Your task to perform on an android device: Open the calendar and show me this week's events? Image 0: 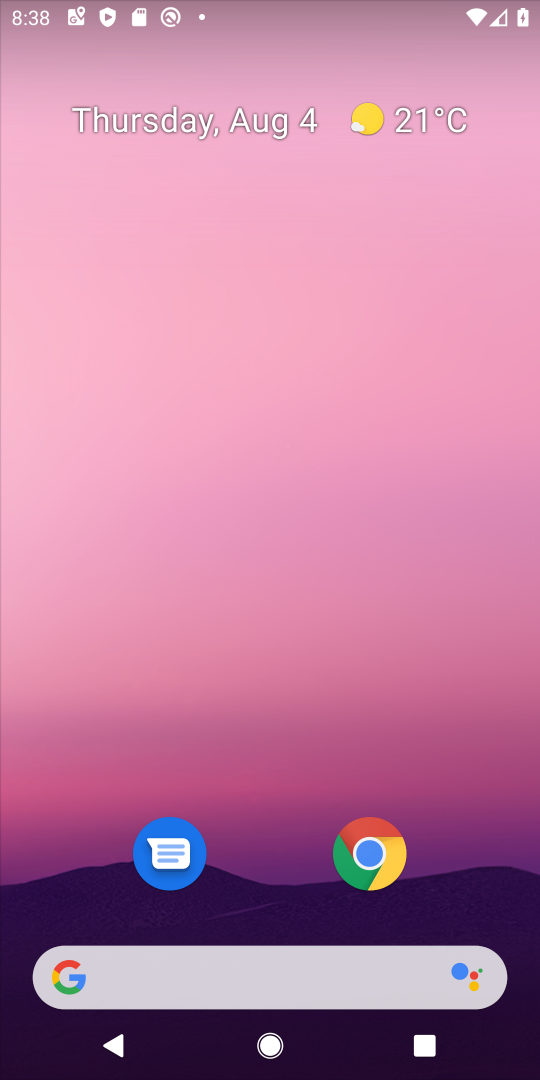
Step 0: drag from (246, 793) to (246, 337)
Your task to perform on an android device: Open the calendar and show me this week's events? Image 1: 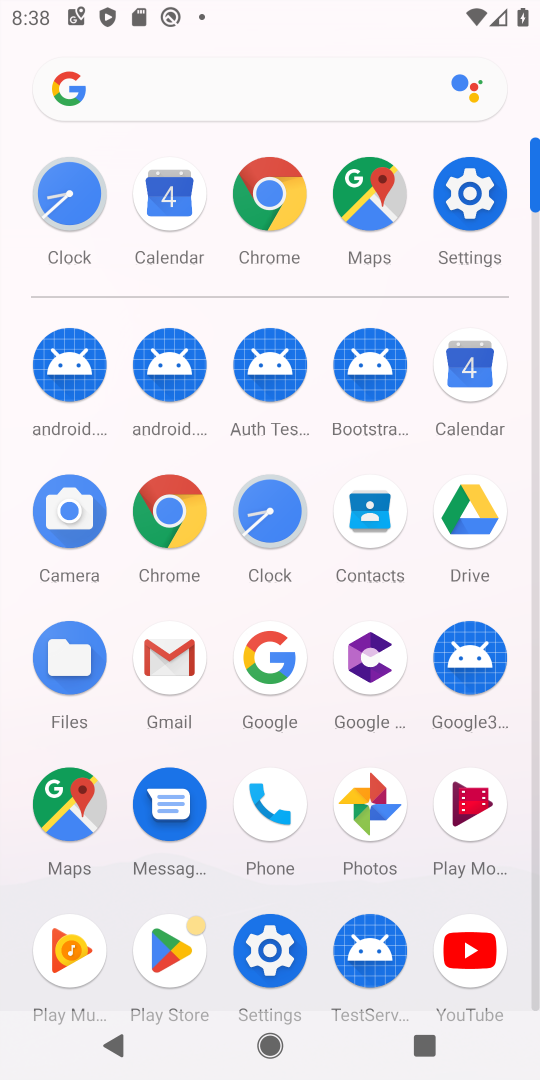
Step 1: click (462, 376)
Your task to perform on an android device: Open the calendar and show me this week's events? Image 2: 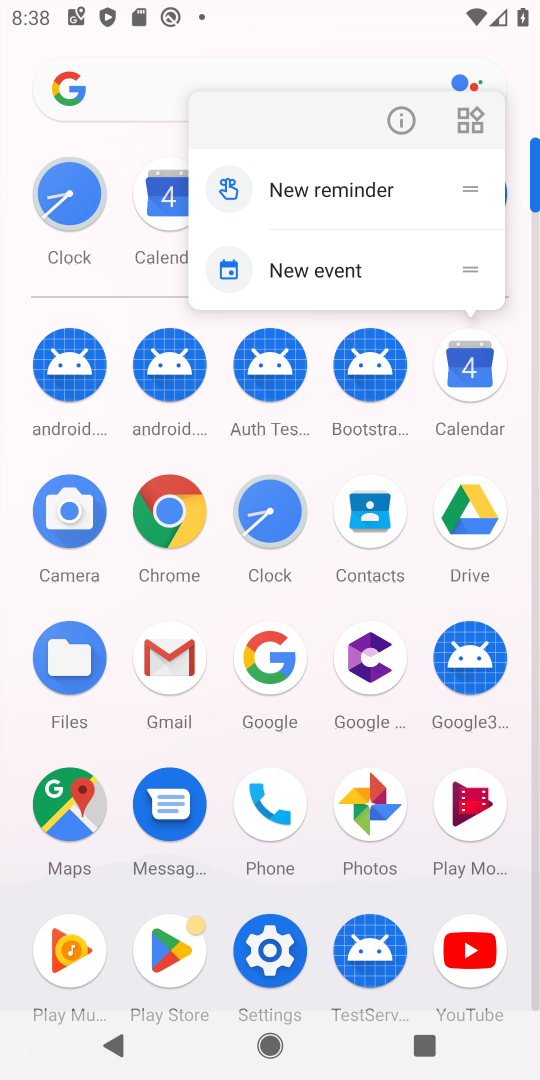
Step 2: click (461, 375)
Your task to perform on an android device: Open the calendar and show me this week's events? Image 3: 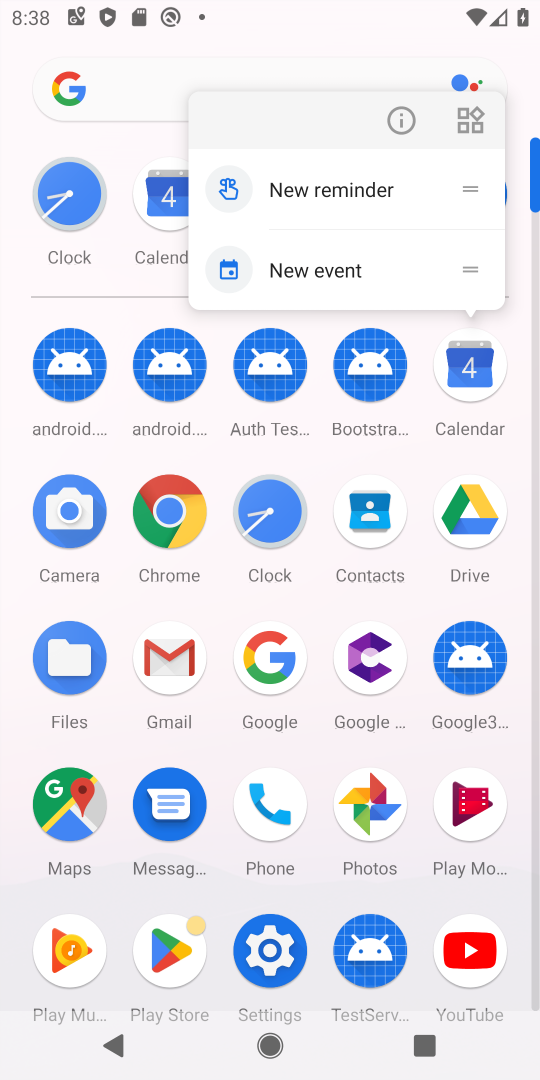
Step 3: click (464, 376)
Your task to perform on an android device: Open the calendar and show me this week's events? Image 4: 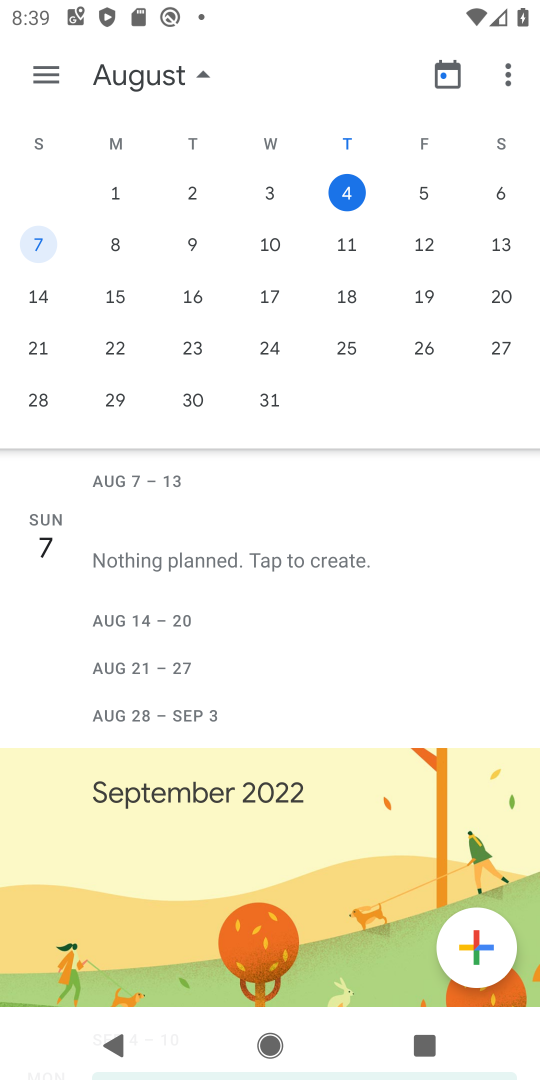
Step 4: click (458, 367)
Your task to perform on an android device: Open the calendar and show me this week's events? Image 5: 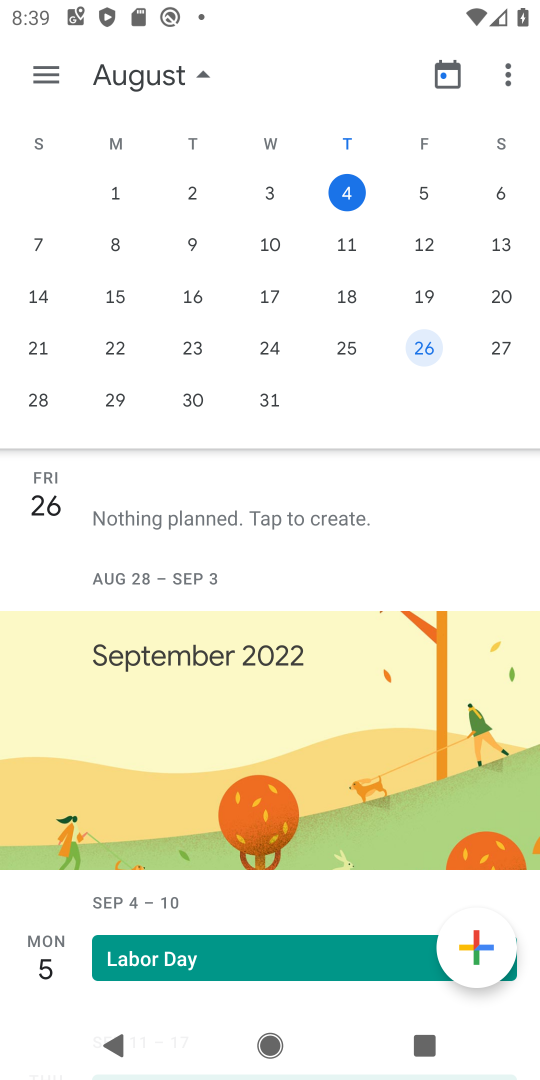
Step 5: click (432, 198)
Your task to perform on an android device: Open the calendar and show me this week's events? Image 6: 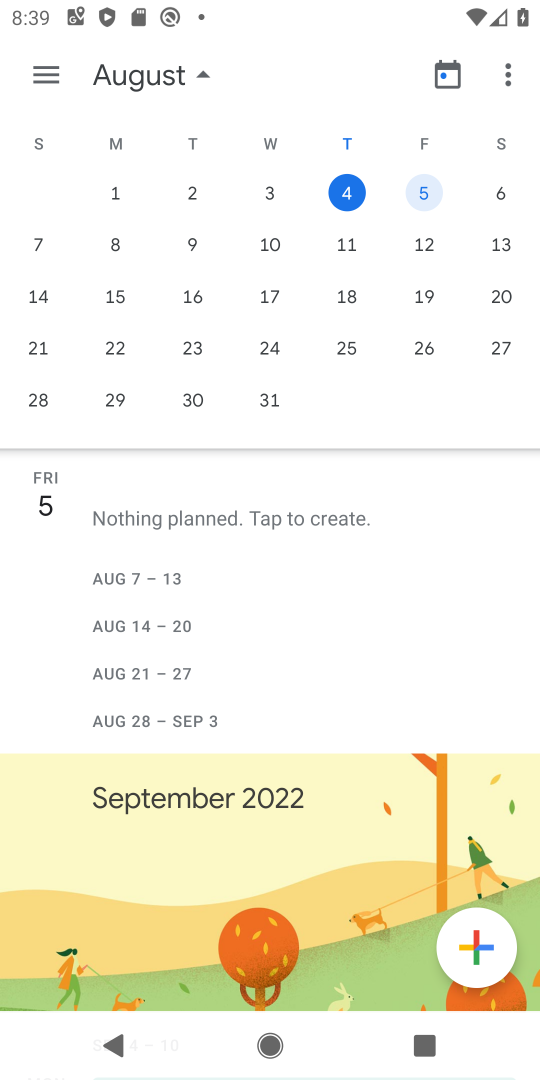
Step 6: click (488, 190)
Your task to perform on an android device: Open the calendar and show me this week's events? Image 7: 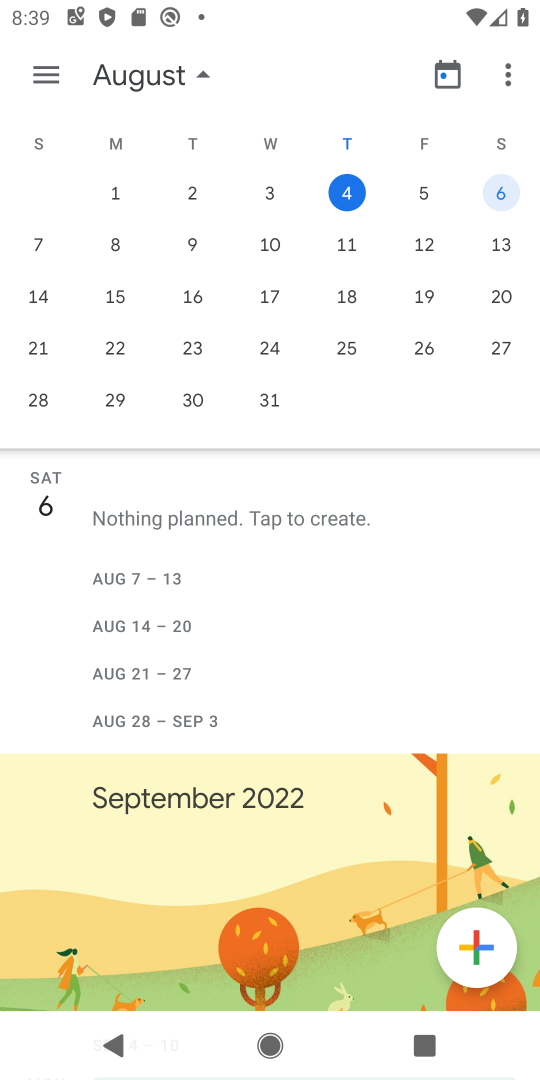
Step 7: click (26, 306)
Your task to perform on an android device: Open the calendar and show me this week's events? Image 8: 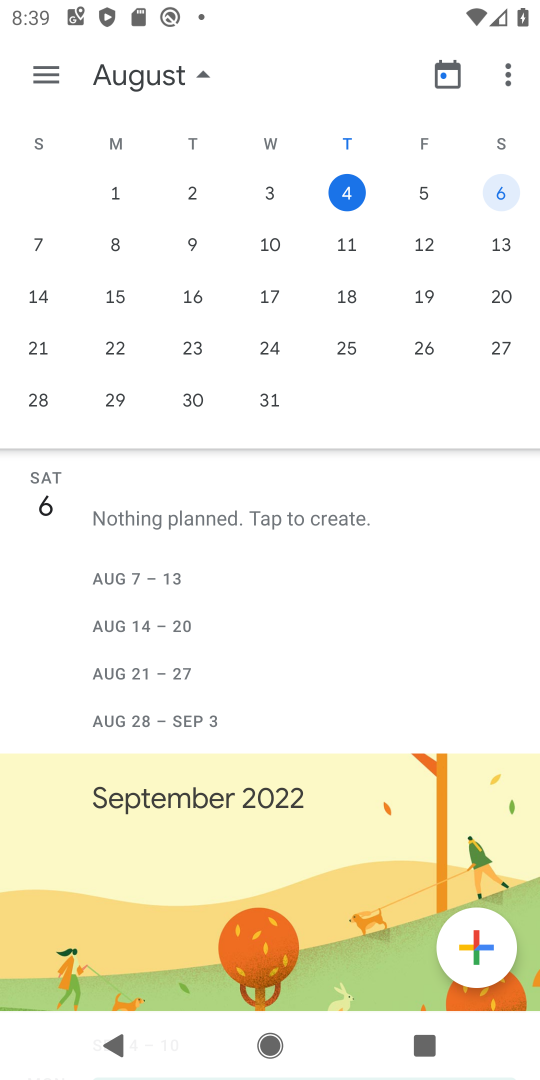
Step 8: click (46, 233)
Your task to perform on an android device: Open the calendar and show me this week's events? Image 9: 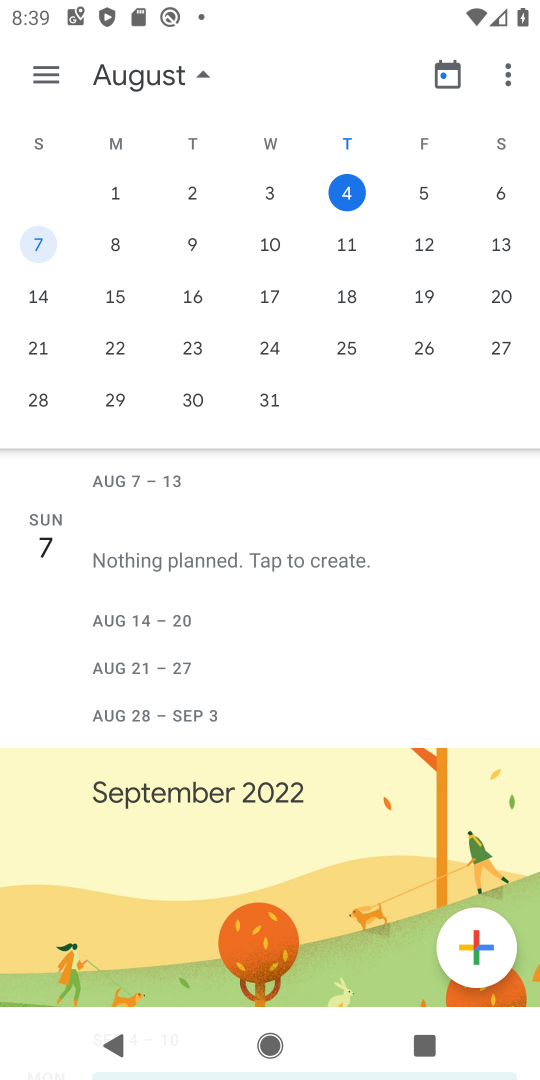
Step 9: task complete